Your task to perform on an android device: Go to internet settings Image 0: 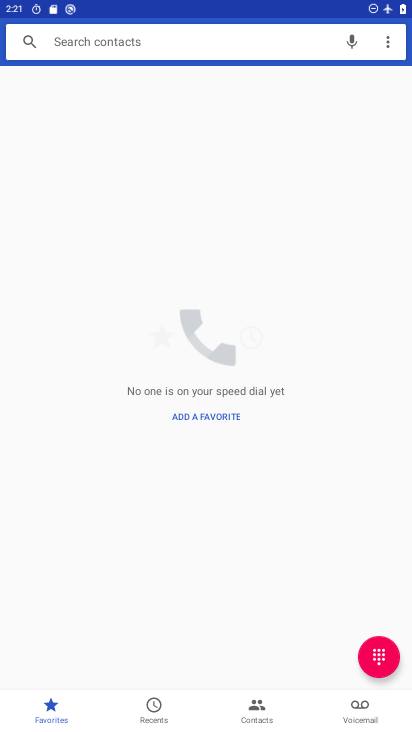
Step 0: drag from (198, 637) to (205, 155)
Your task to perform on an android device: Go to internet settings Image 1: 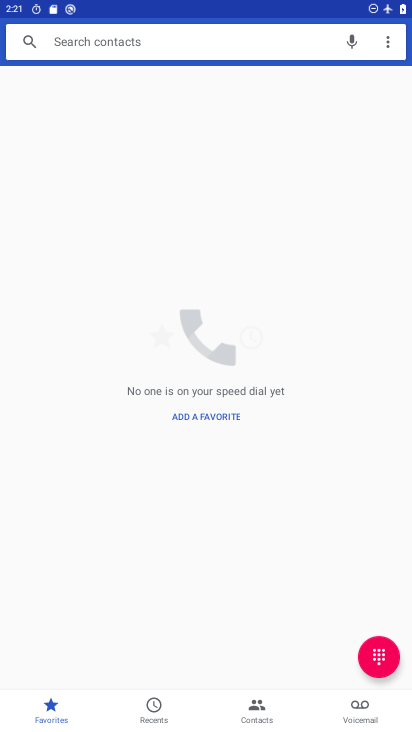
Step 1: press home button
Your task to perform on an android device: Go to internet settings Image 2: 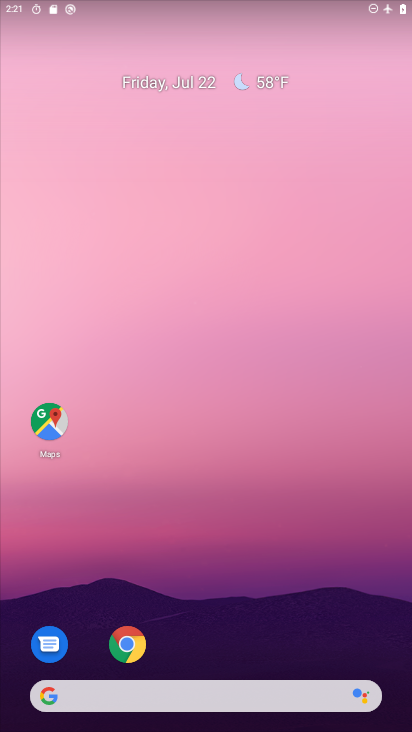
Step 2: drag from (216, 618) to (216, 97)
Your task to perform on an android device: Go to internet settings Image 3: 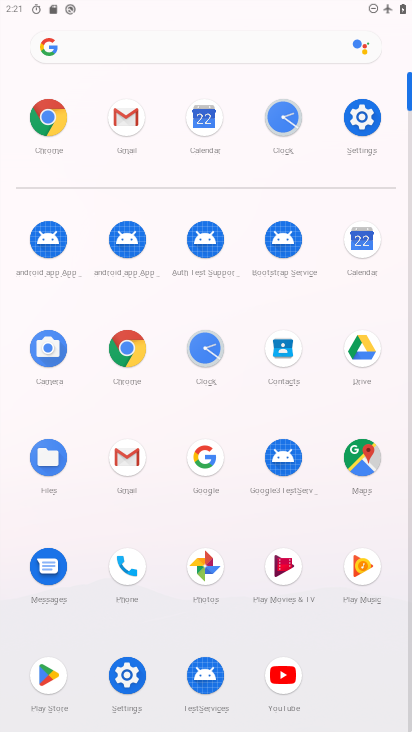
Step 3: click (357, 132)
Your task to perform on an android device: Go to internet settings Image 4: 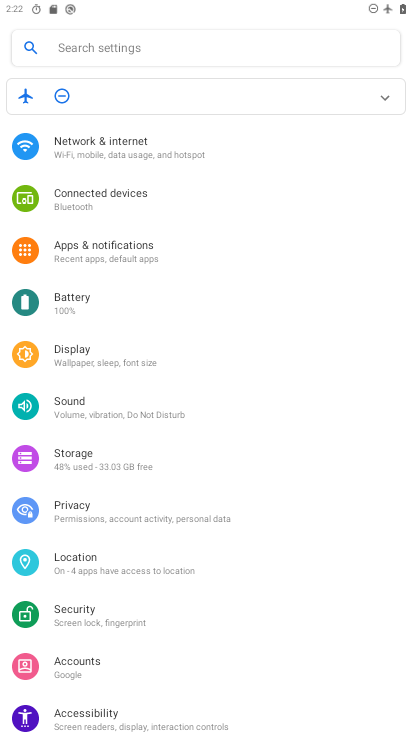
Step 4: click (173, 163)
Your task to perform on an android device: Go to internet settings Image 5: 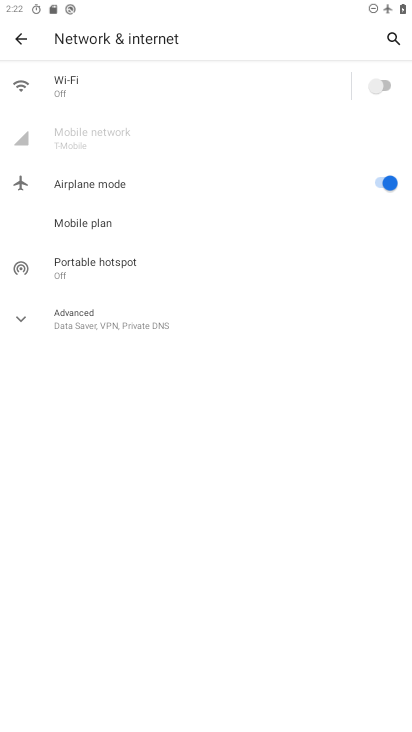
Step 5: task complete